Your task to perform on an android device: Go to settings Image 0: 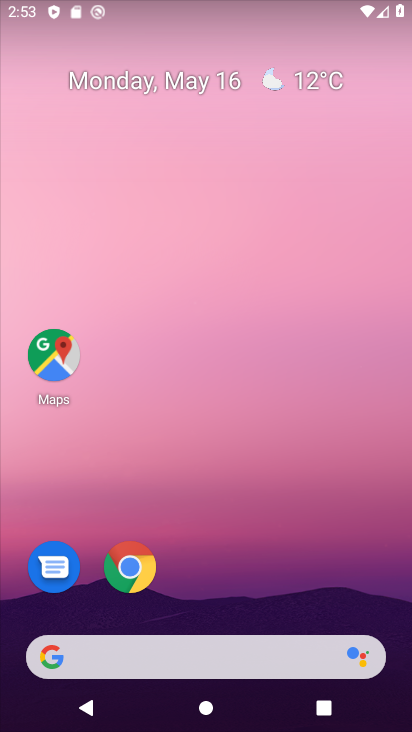
Step 0: drag from (185, 641) to (355, 93)
Your task to perform on an android device: Go to settings Image 1: 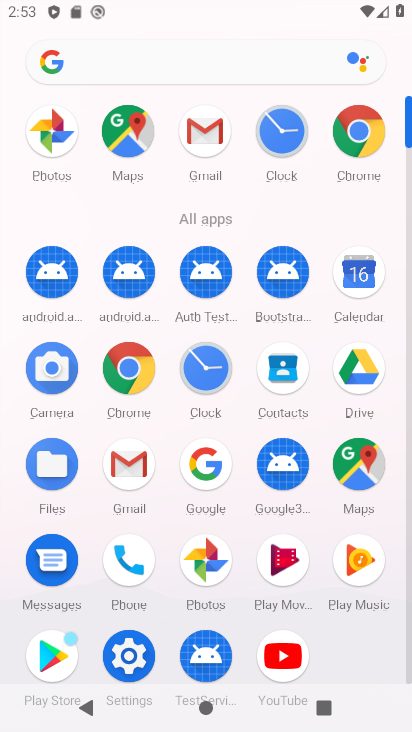
Step 1: click (133, 664)
Your task to perform on an android device: Go to settings Image 2: 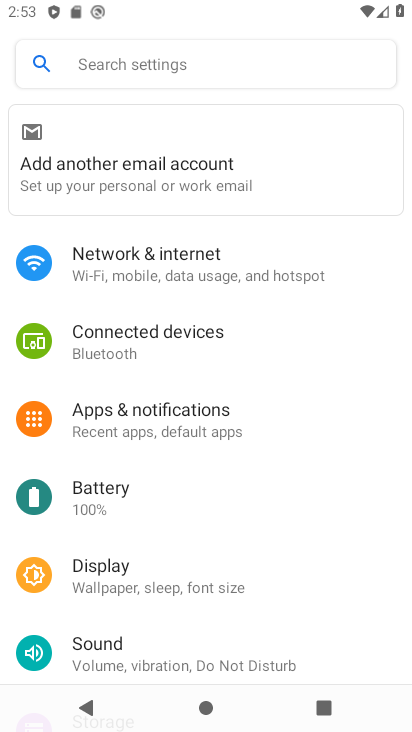
Step 2: task complete